Your task to perform on an android device: Empty the shopping cart on walmart.com. Add "asus rog" to the cart on walmart.com, then select checkout. Image 0: 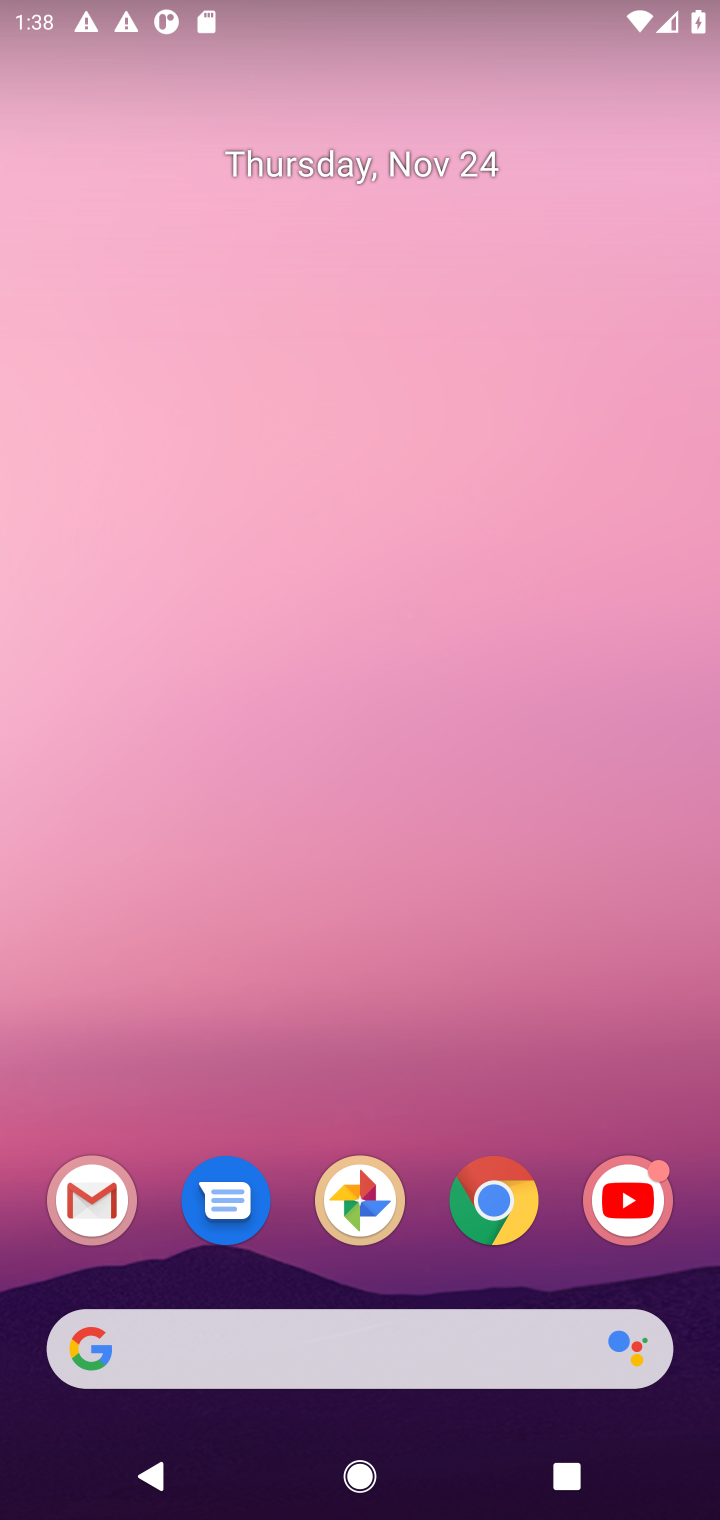
Step 0: click (313, 1337)
Your task to perform on an android device: Empty the shopping cart on walmart.com. Add "asus rog" to the cart on walmart.com, then select checkout. Image 1: 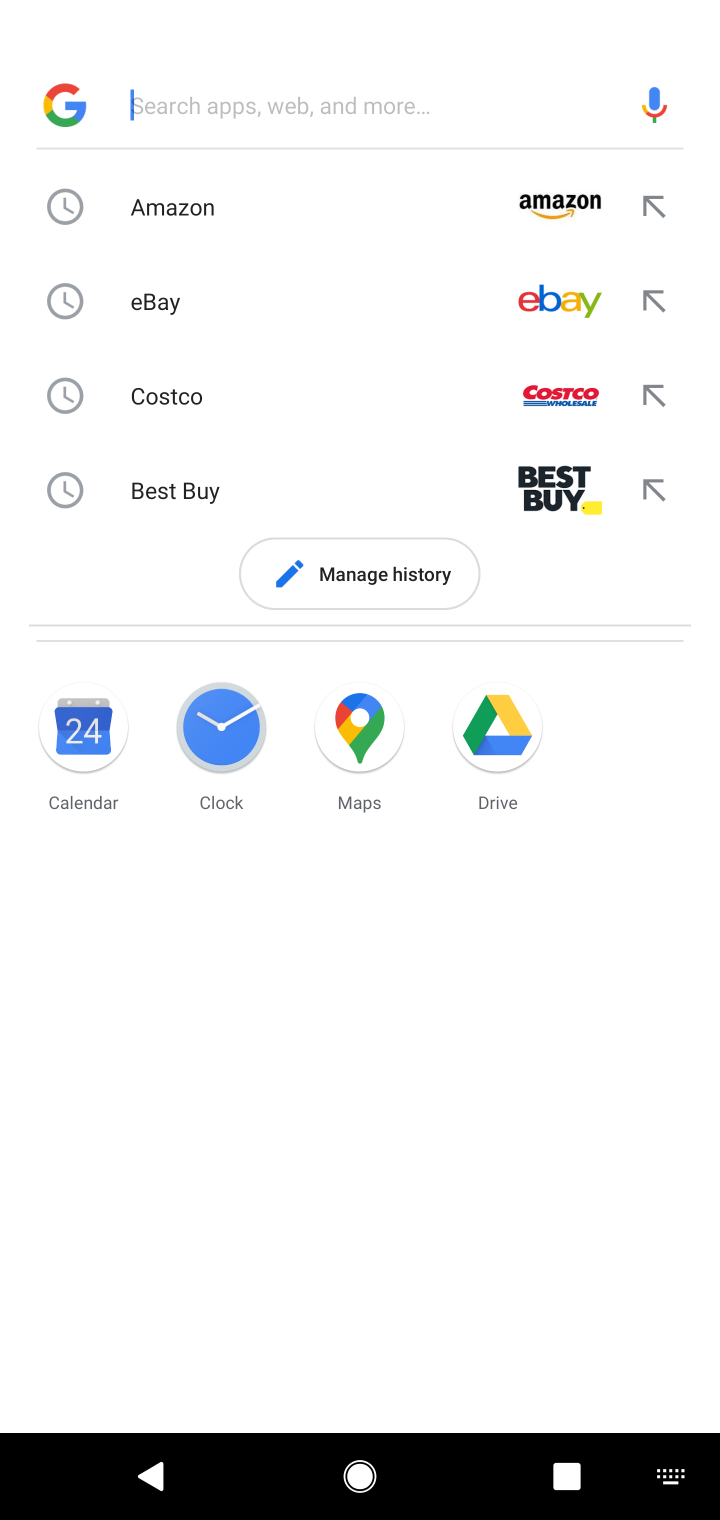
Step 1: type "walmart"
Your task to perform on an android device: Empty the shopping cart on walmart.com. Add "asus rog" to the cart on walmart.com, then select checkout. Image 2: 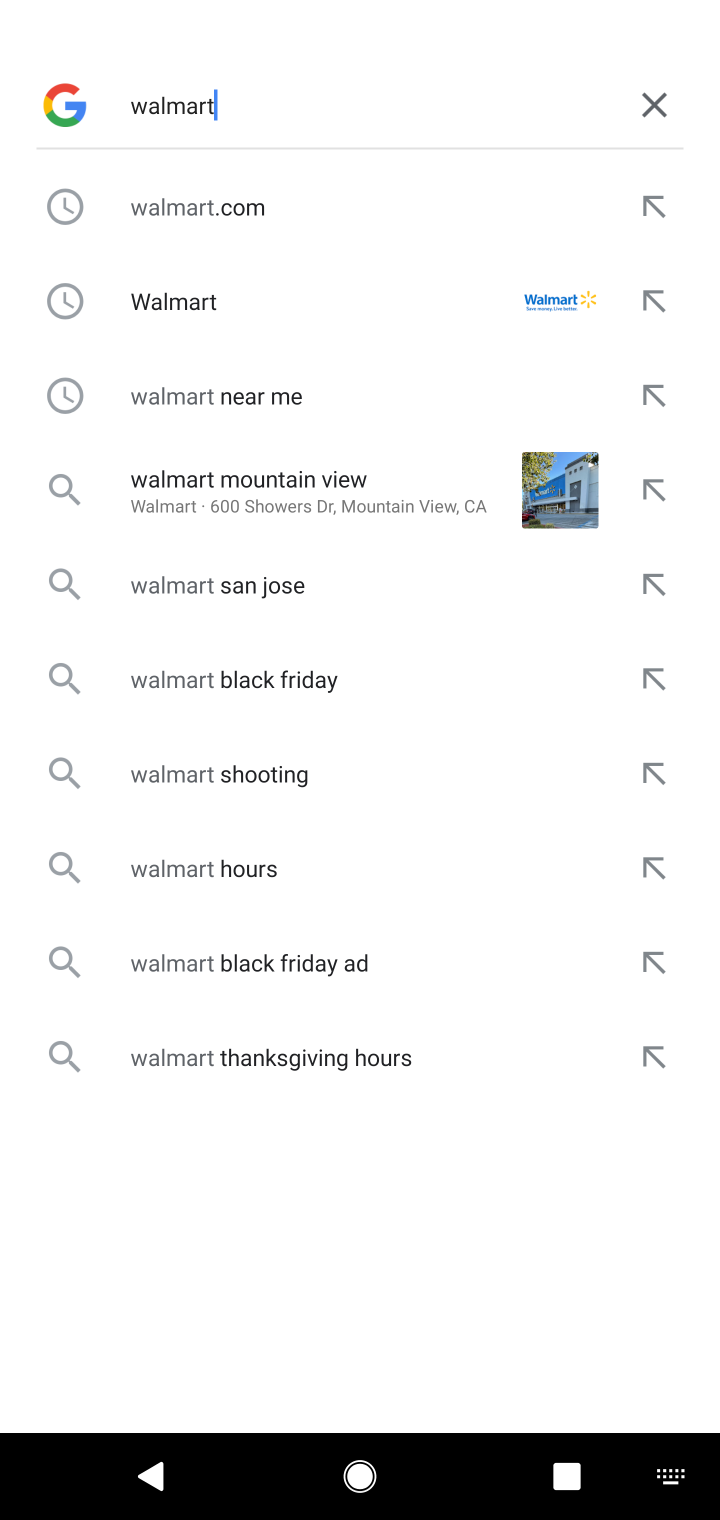
Step 2: click (166, 223)
Your task to perform on an android device: Empty the shopping cart on walmart.com. Add "asus rog" to the cart on walmart.com, then select checkout. Image 3: 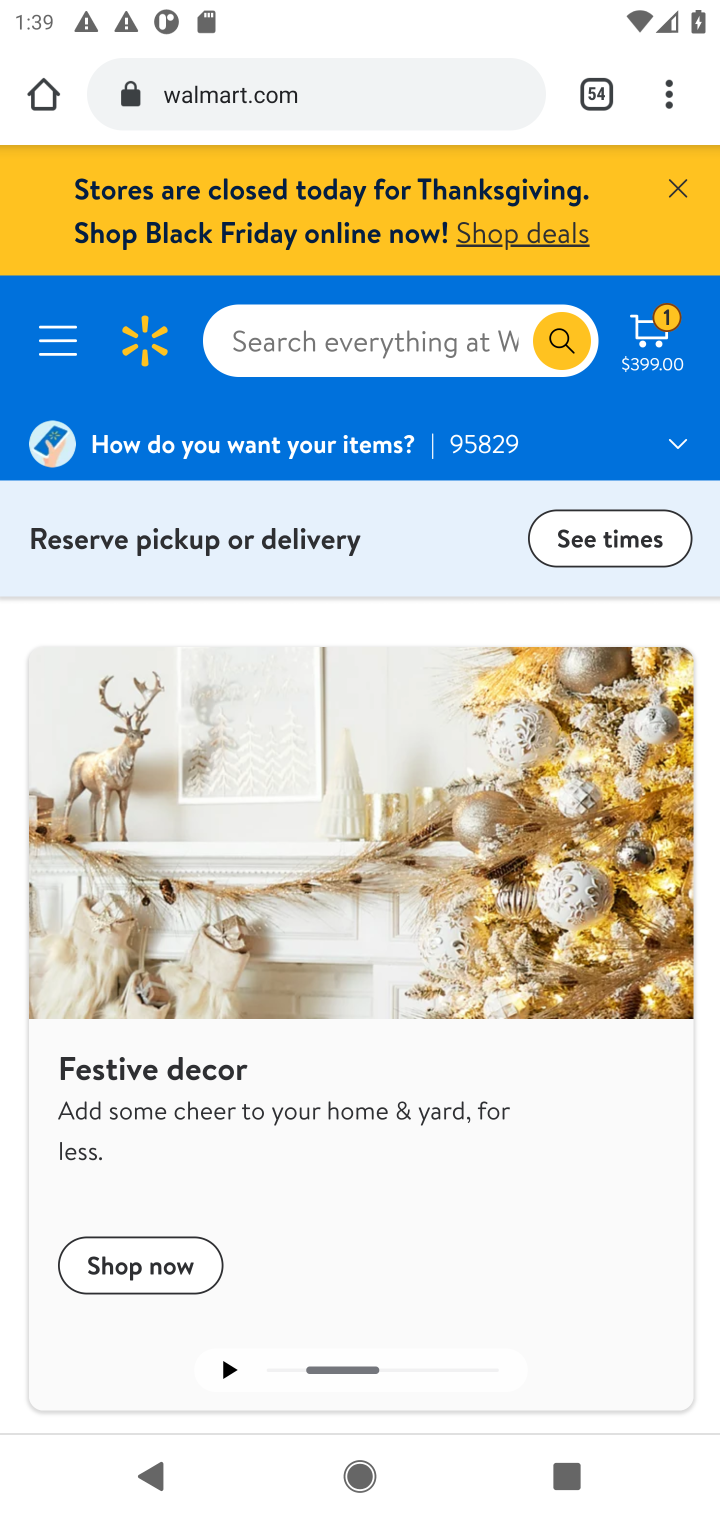
Step 3: task complete